Your task to perform on an android device: Open settings Image 0: 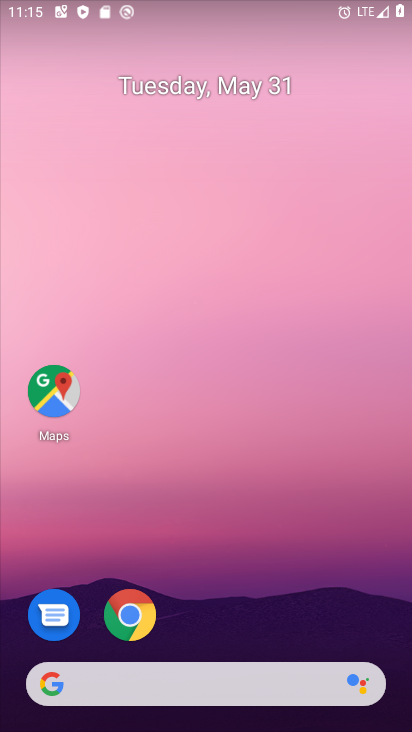
Step 0: drag from (284, 515) to (361, 274)
Your task to perform on an android device: Open settings Image 1: 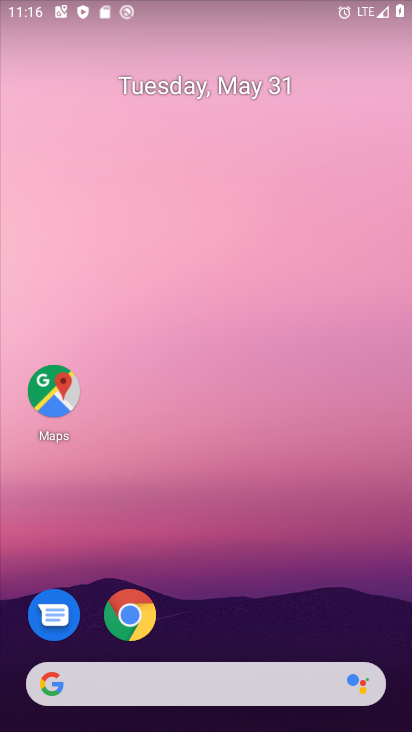
Step 1: drag from (267, 544) to (271, 20)
Your task to perform on an android device: Open settings Image 2: 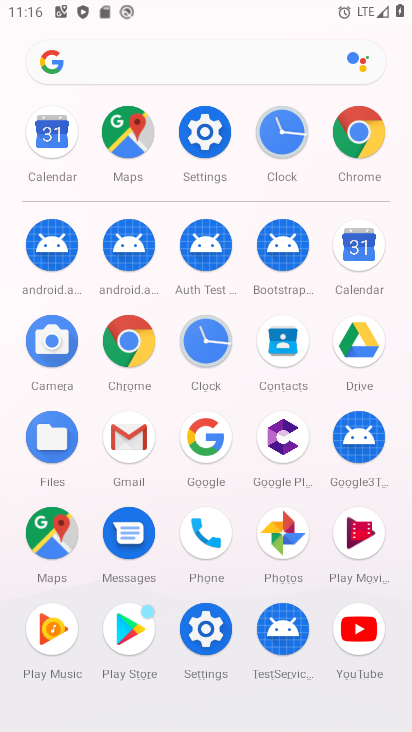
Step 2: click (208, 108)
Your task to perform on an android device: Open settings Image 3: 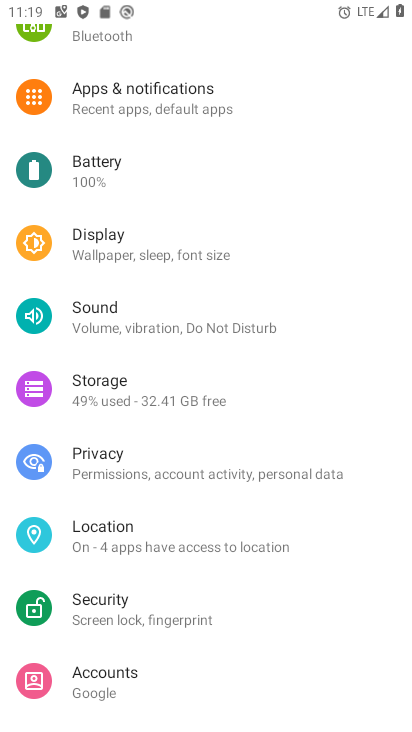
Step 3: task complete